Your task to perform on an android device: clear history in the chrome app Image 0: 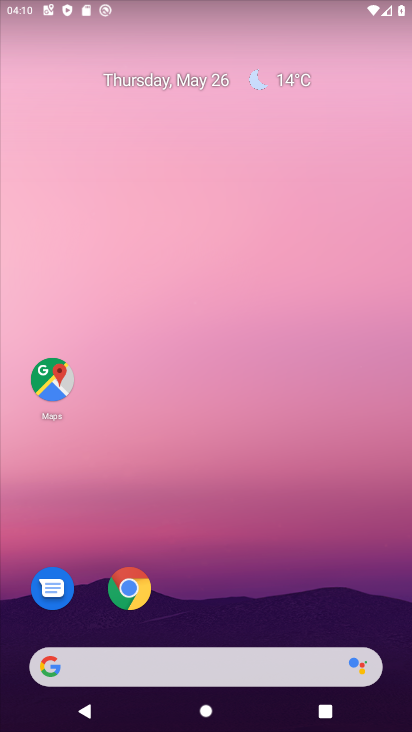
Step 0: drag from (253, 604) to (289, 126)
Your task to perform on an android device: clear history in the chrome app Image 1: 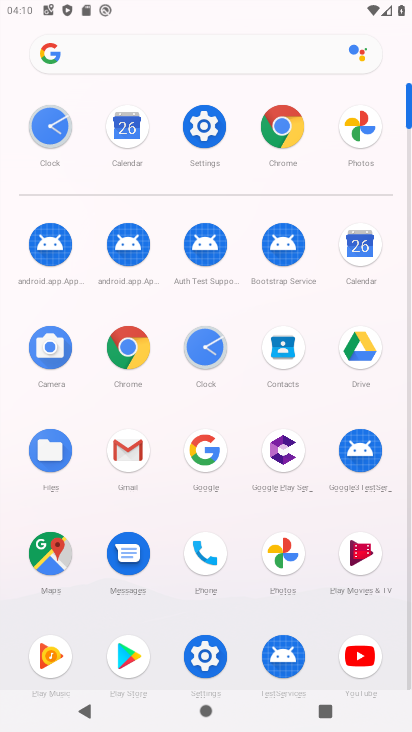
Step 1: click (279, 123)
Your task to perform on an android device: clear history in the chrome app Image 2: 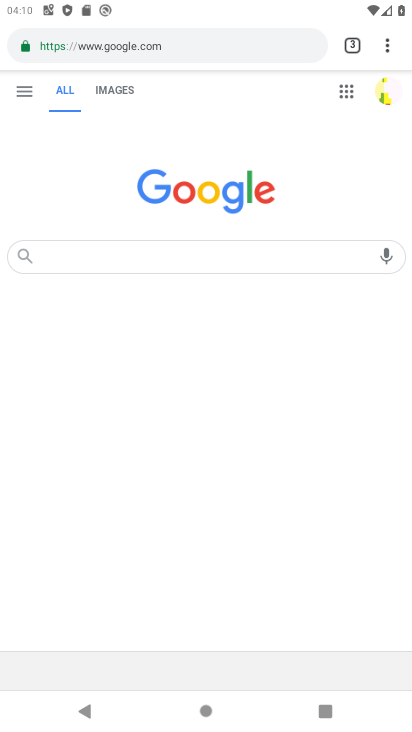
Step 2: click (384, 56)
Your task to perform on an android device: clear history in the chrome app Image 3: 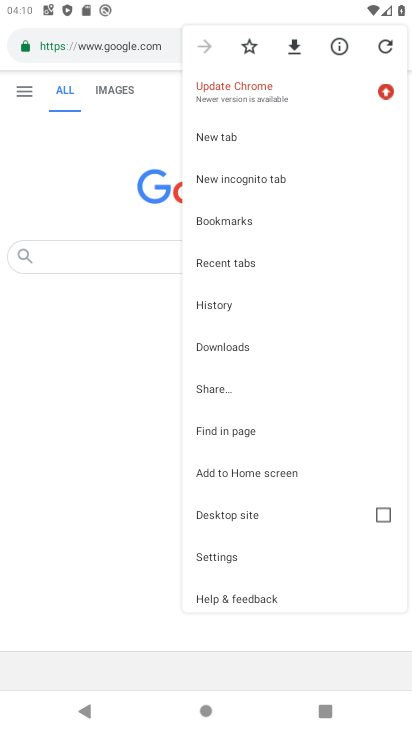
Step 3: click (279, 304)
Your task to perform on an android device: clear history in the chrome app Image 4: 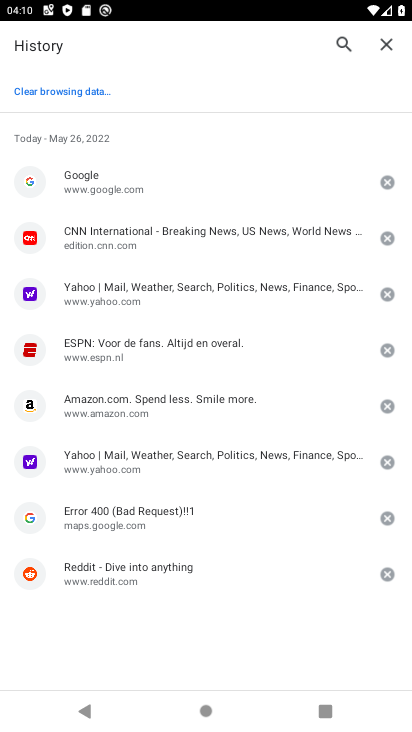
Step 4: click (78, 115)
Your task to perform on an android device: clear history in the chrome app Image 5: 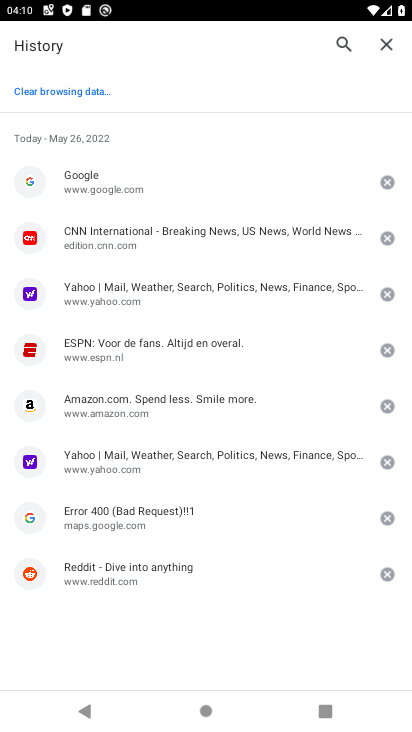
Step 5: click (88, 90)
Your task to perform on an android device: clear history in the chrome app Image 6: 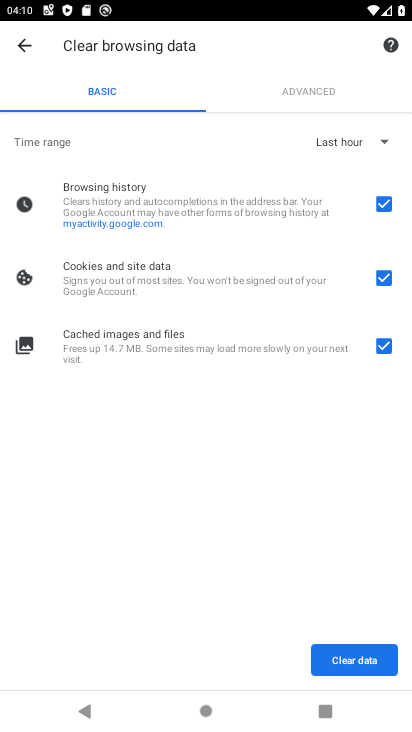
Step 6: click (354, 650)
Your task to perform on an android device: clear history in the chrome app Image 7: 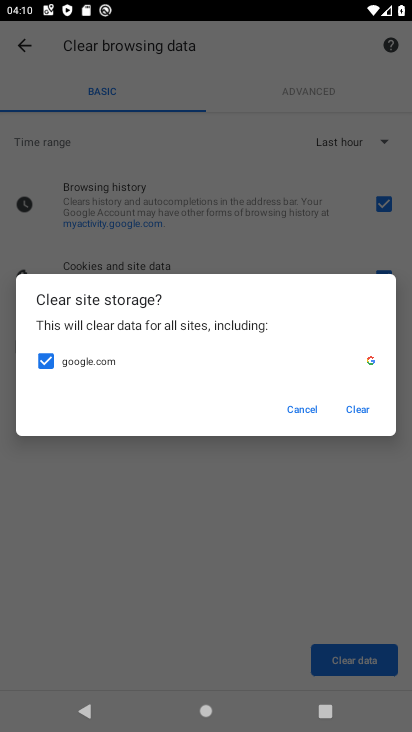
Step 7: click (361, 404)
Your task to perform on an android device: clear history in the chrome app Image 8: 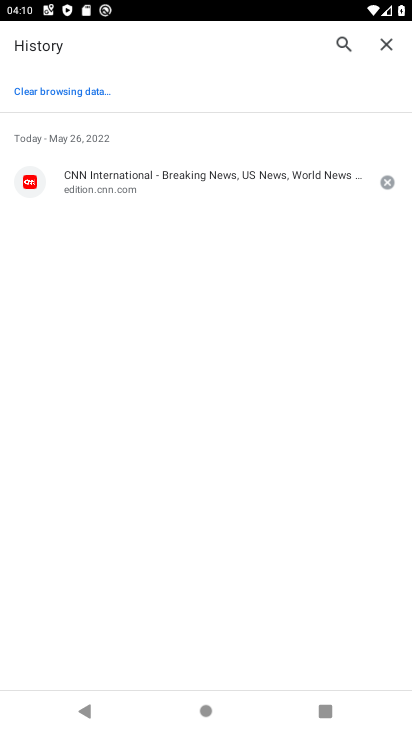
Step 8: task complete